Your task to perform on an android device: Open network settings Image 0: 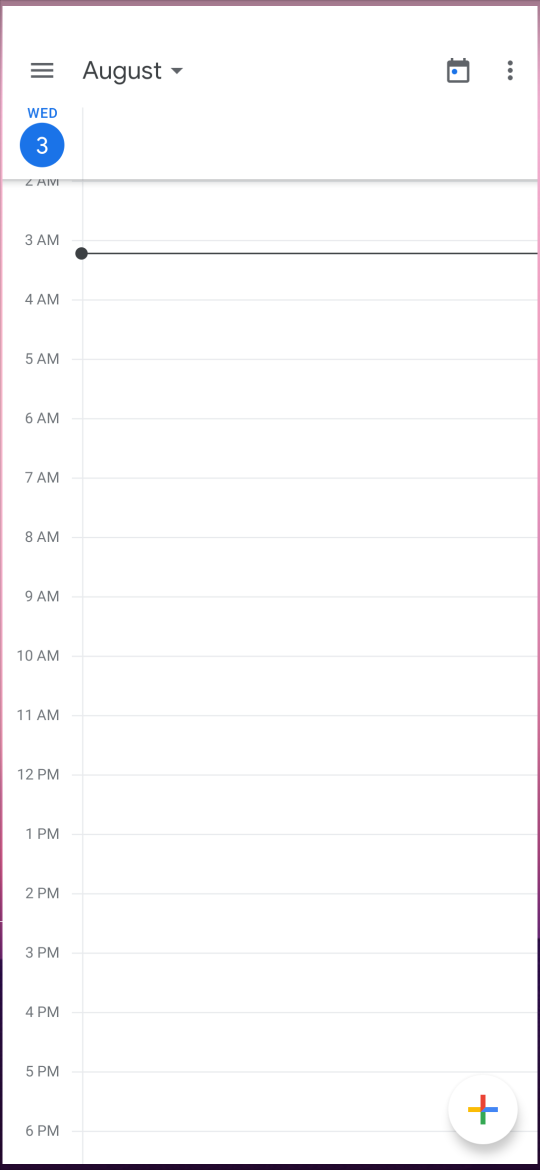
Step 0: press home button
Your task to perform on an android device: Open network settings Image 1: 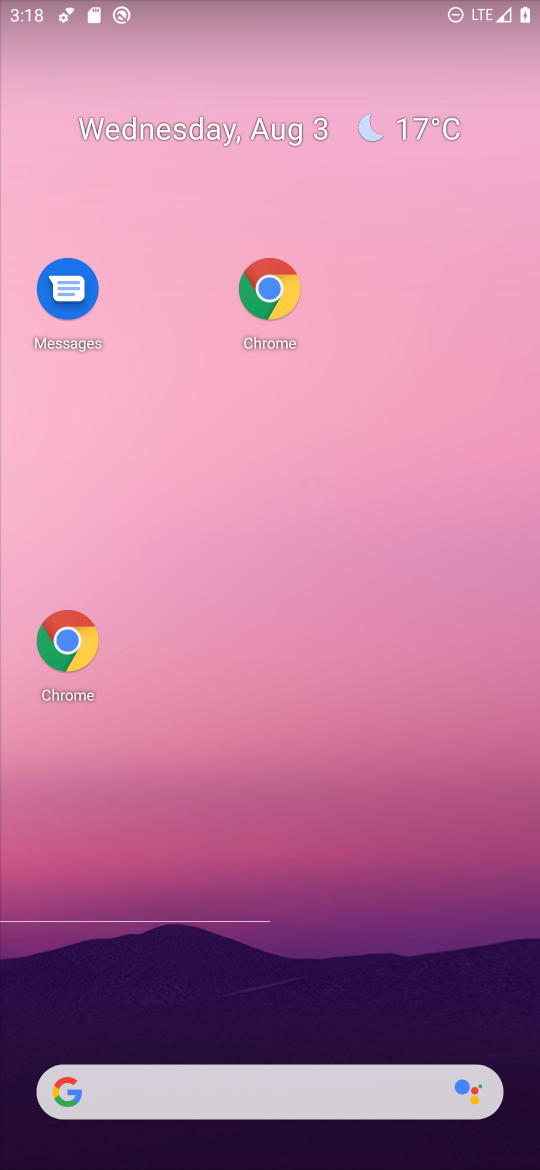
Step 1: drag from (374, 1004) to (379, 200)
Your task to perform on an android device: Open network settings Image 2: 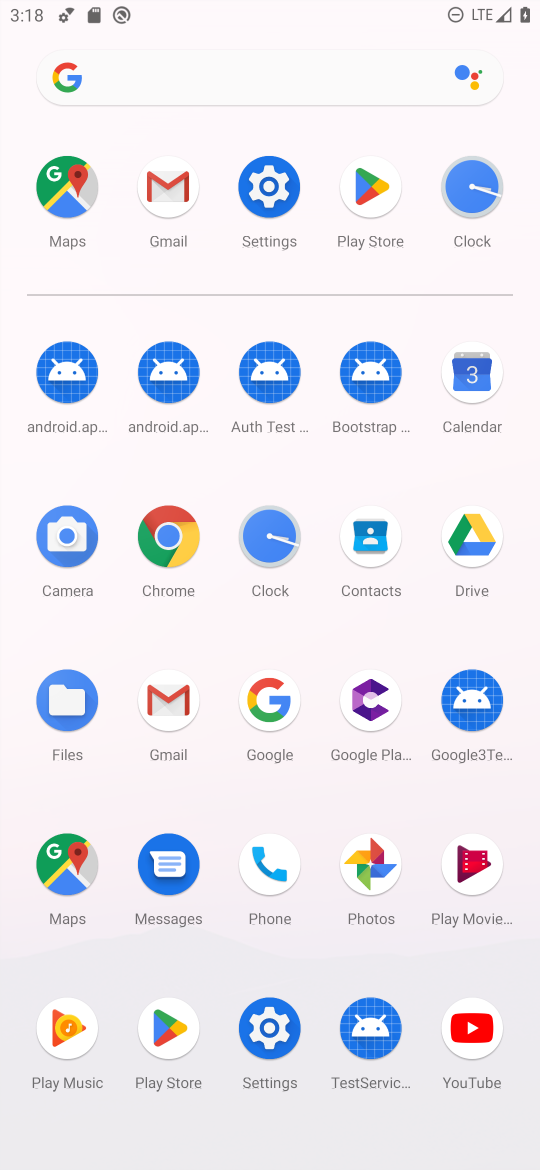
Step 2: click (277, 233)
Your task to perform on an android device: Open network settings Image 3: 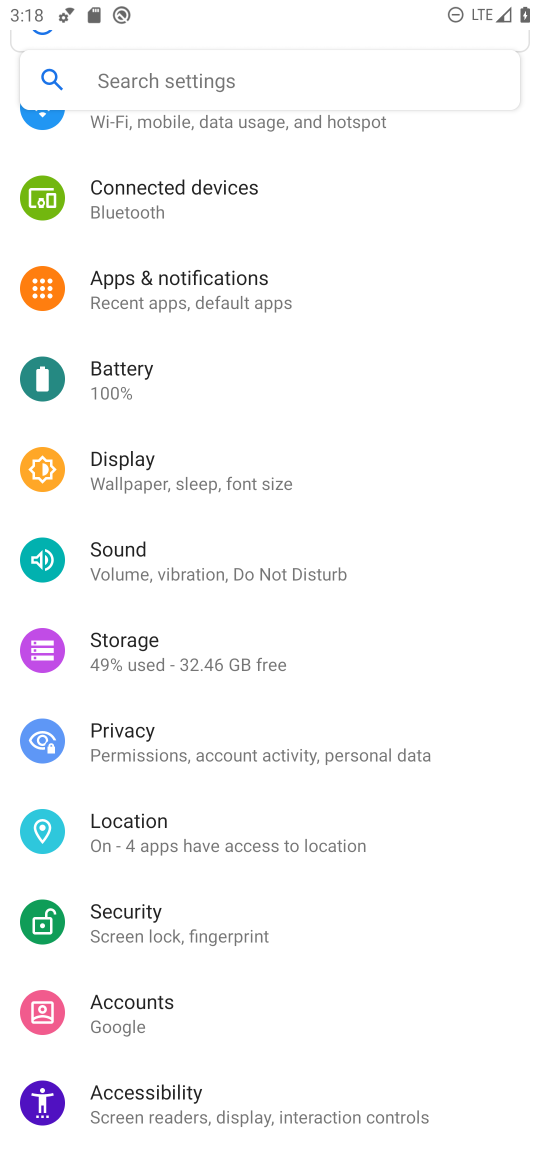
Step 3: click (263, 145)
Your task to perform on an android device: Open network settings Image 4: 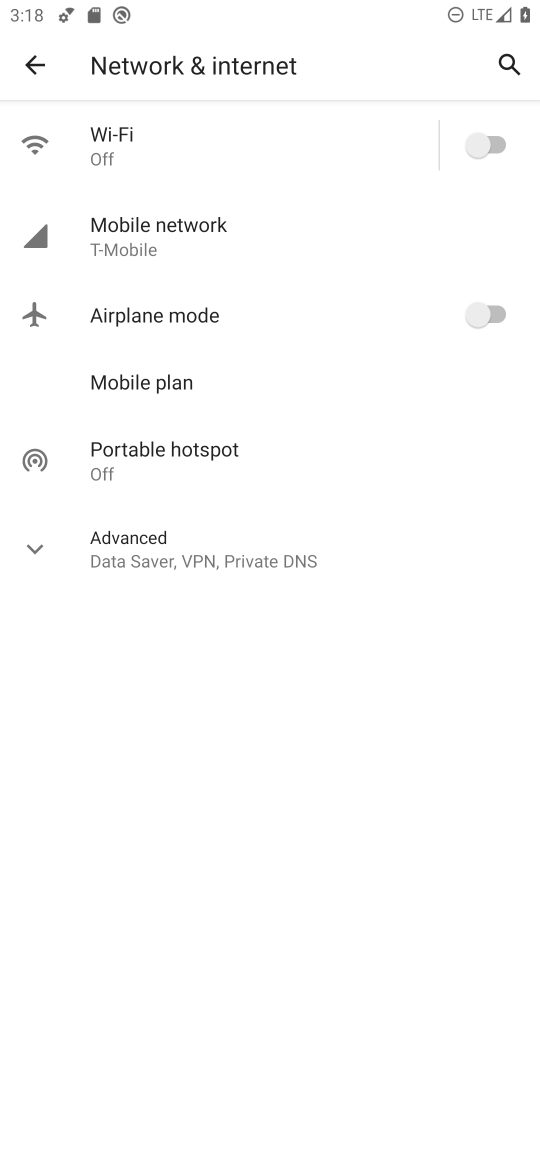
Step 4: task complete